Your task to perform on an android device: toggle priority inbox in the gmail app Image 0: 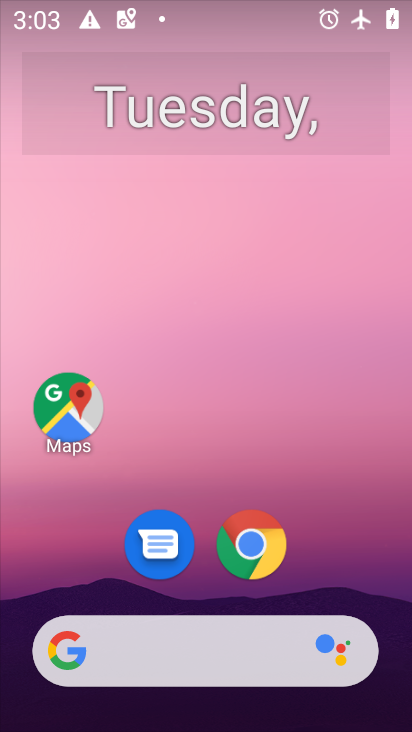
Step 0: drag from (328, 552) to (375, 0)
Your task to perform on an android device: toggle priority inbox in the gmail app Image 1: 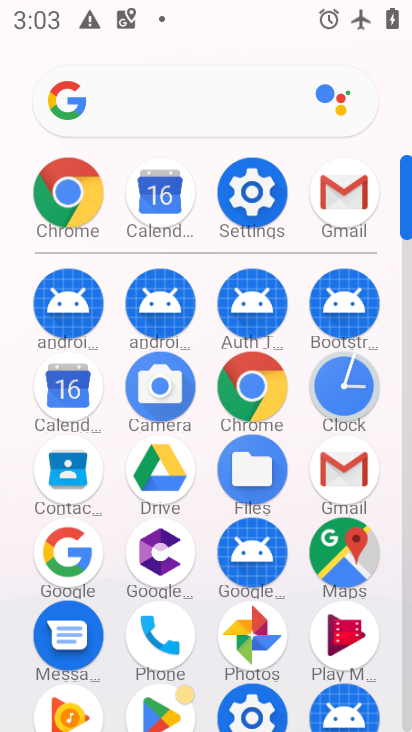
Step 1: click (343, 474)
Your task to perform on an android device: toggle priority inbox in the gmail app Image 2: 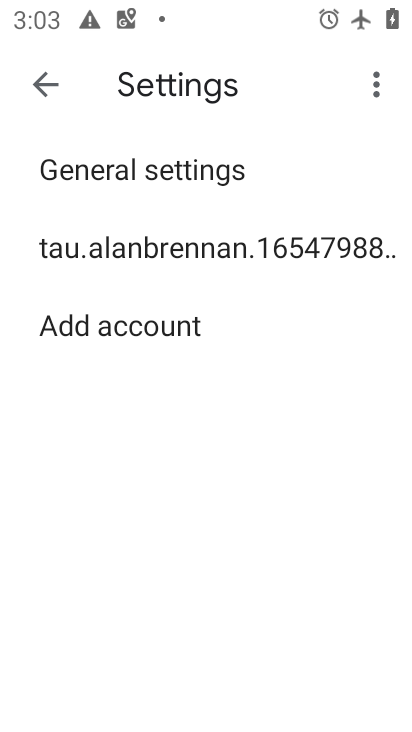
Step 2: click (149, 254)
Your task to perform on an android device: toggle priority inbox in the gmail app Image 3: 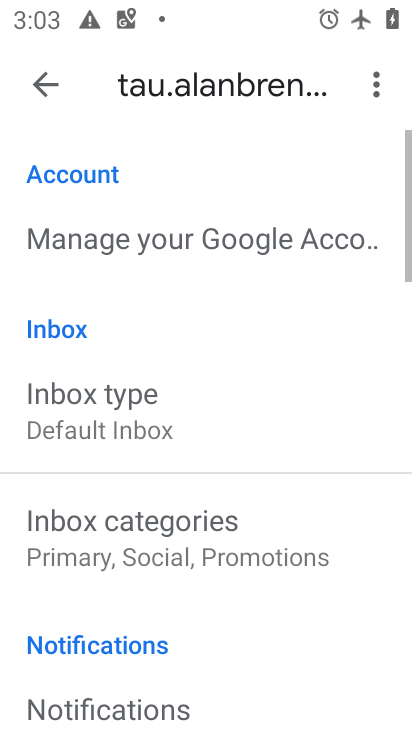
Step 3: click (119, 410)
Your task to perform on an android device: toggle priority inbox in the gmail app Image 4: 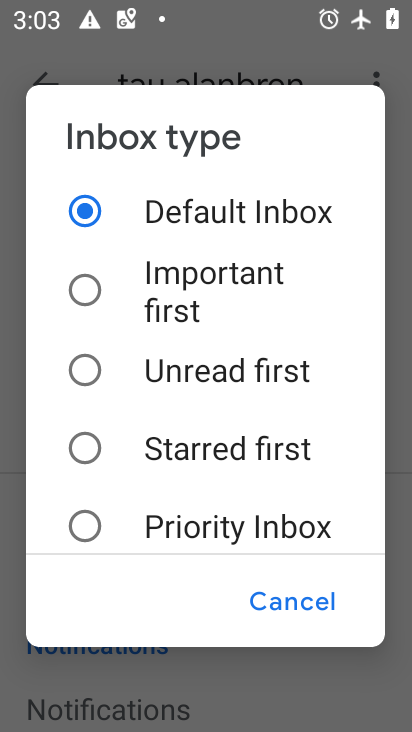
Step 4: click (168, 285)
Your task to perform on an android device: toggle priority inbox in the gmail app Image 5: 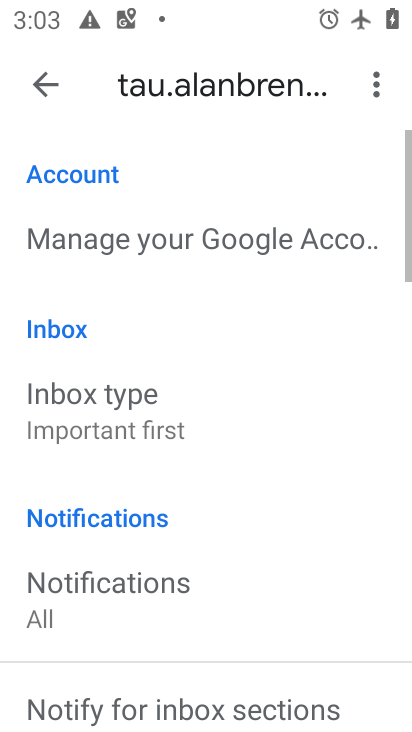
Step 5: task complete